Your task to perform on an android device: Open Reddit.com Image 0: 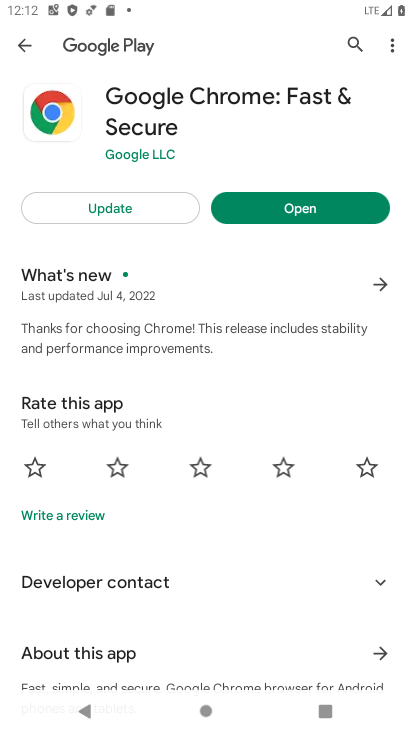
Step 0: click (297, 206)
Your task to perform on an android device: Open Reddit.com Image 1: 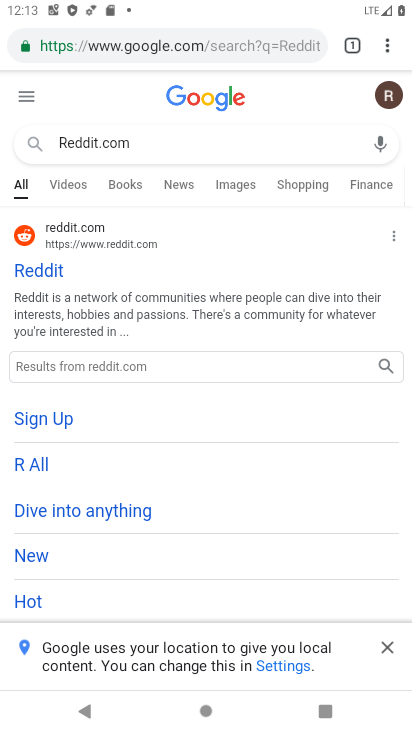
Step 1: task complete